Your task to perform on an android device: set the timer Image 0: 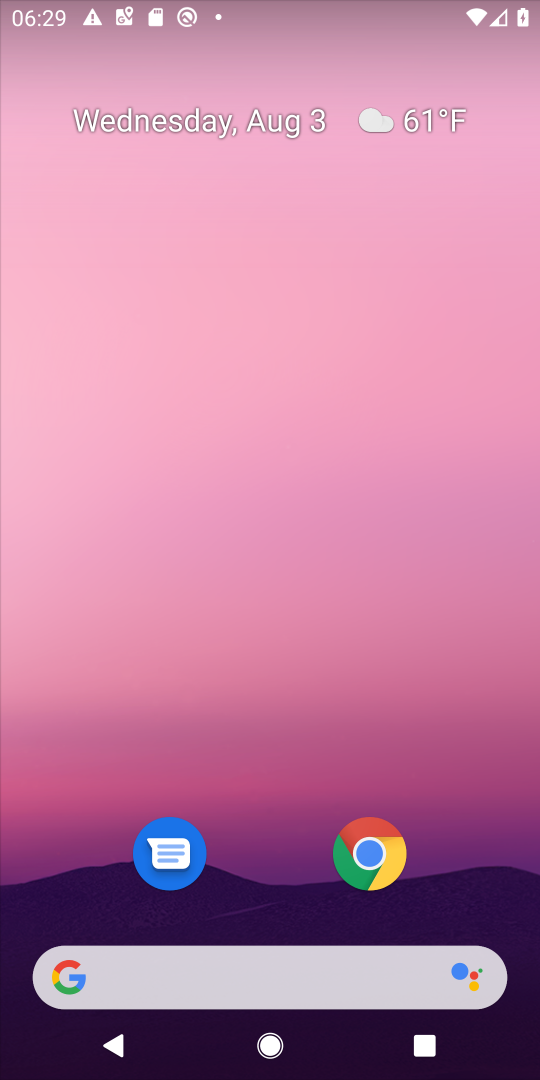
Step 0: drag from (273, 928) to (254, 59)
Your task to perform on an android device: set the timer Image 1: 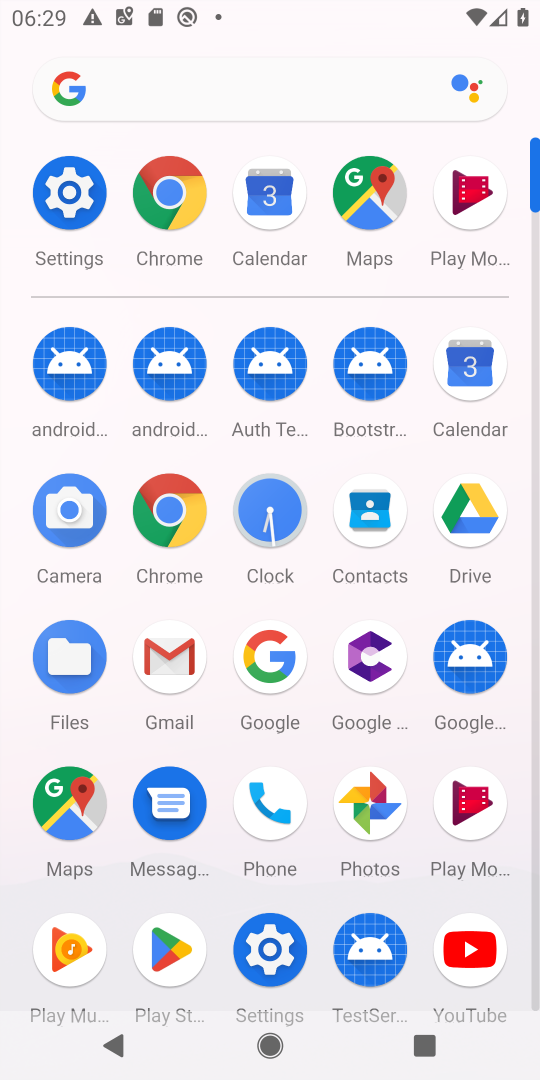
Step 1: click (257, 523)
Your task to perform on an android device: set the timer Image 2: 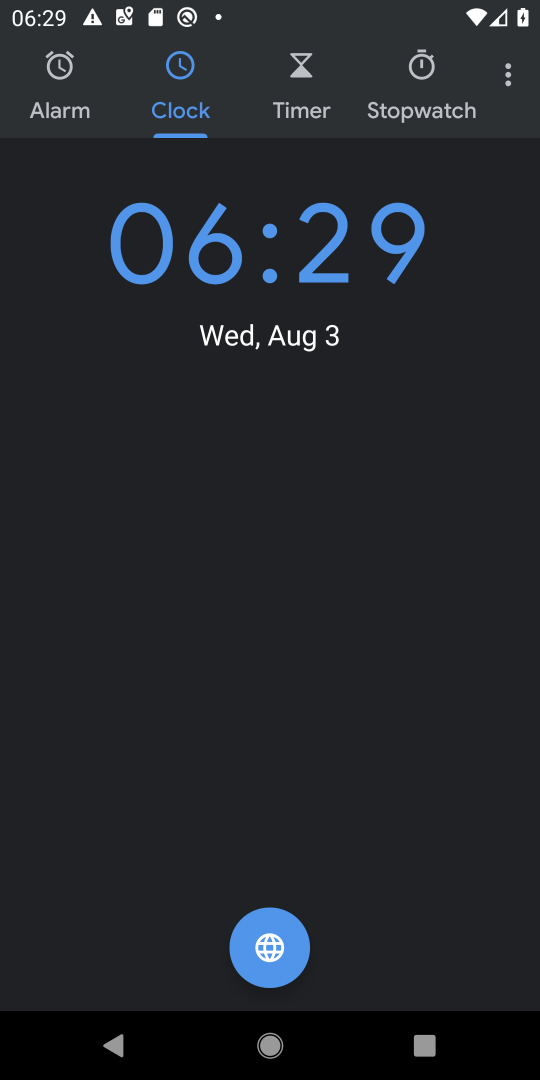
Step 2: click (302, 72)
Your task to perform on an android device: set the timer Image 3: 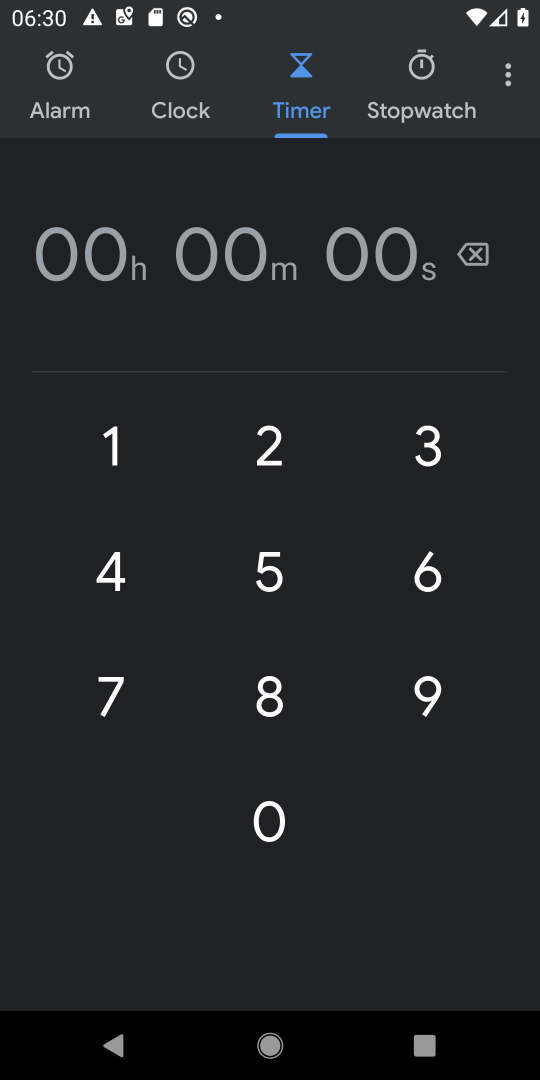
Step 3: click (271, 571)
Your task to perform on an android device: set the timer Image 4: 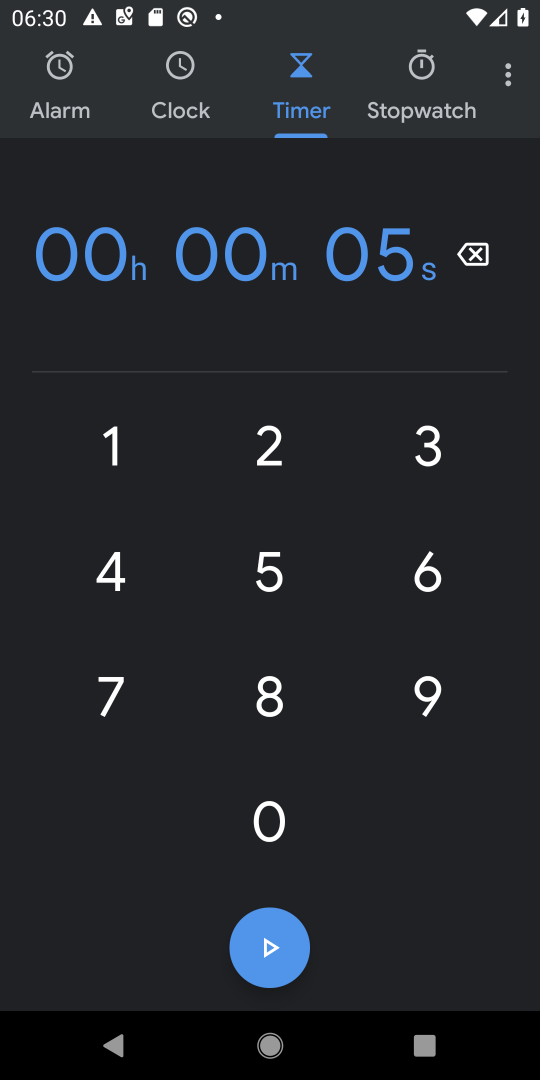
Step 4: click (274, 700)
Your task to perform on an android device: set the timer Image 5: 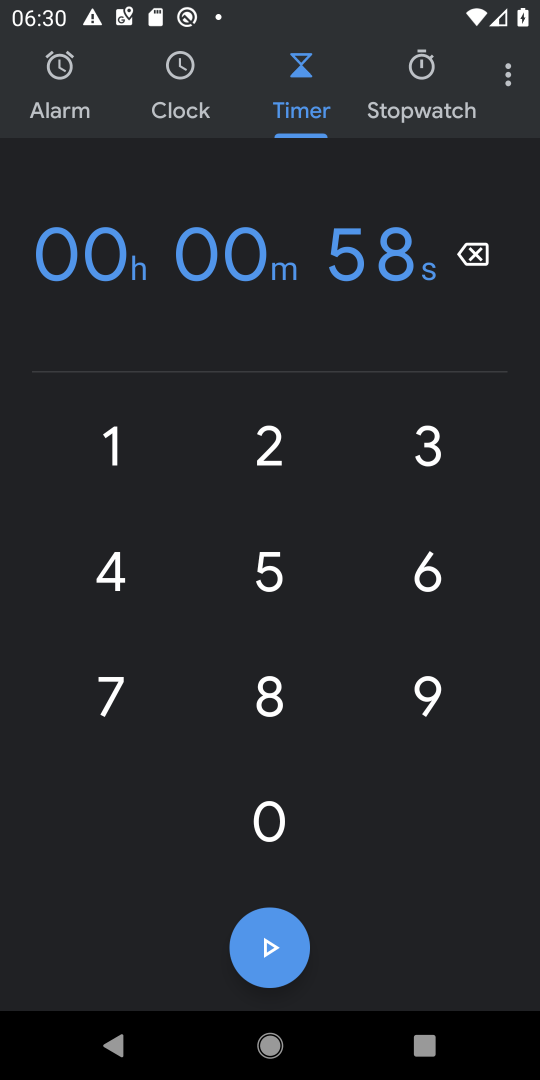
Step 5: click (266, 956)
Your task to perform on an android device: set the timer Image 6: 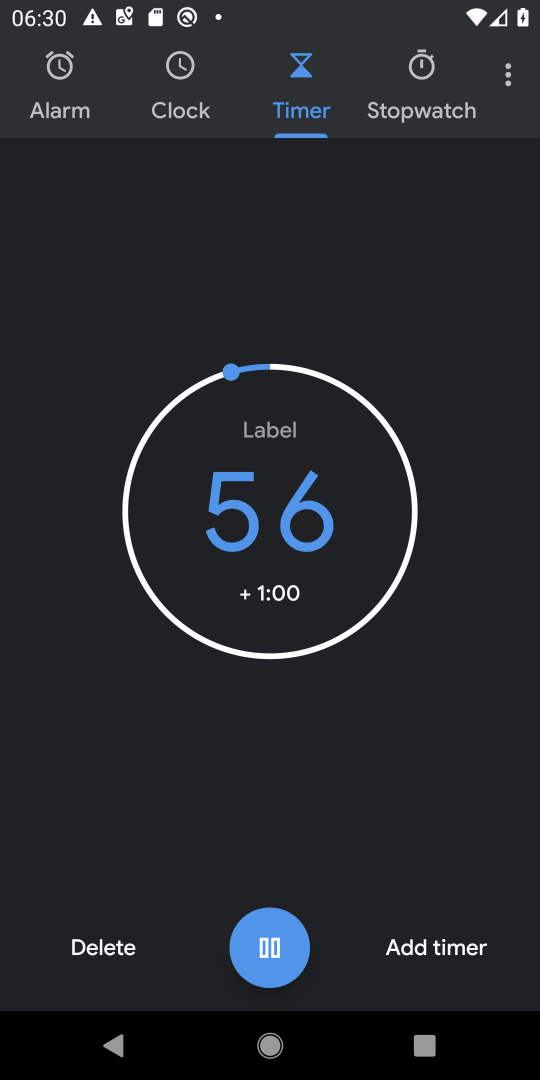
Step 6: task complete